Your task to perform on an android device: move an email to a new category in the gmail app Image 0: 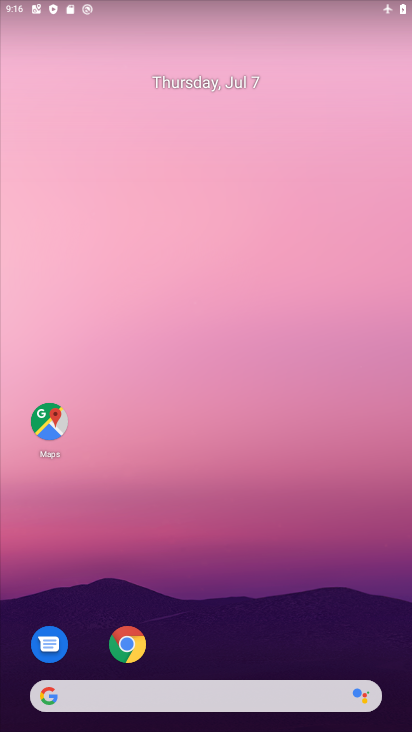
Step 0: drag from (310, 586) to (291, 109)
Your task to perform on an android device: move an email to a new category in the gmail app Image 1: 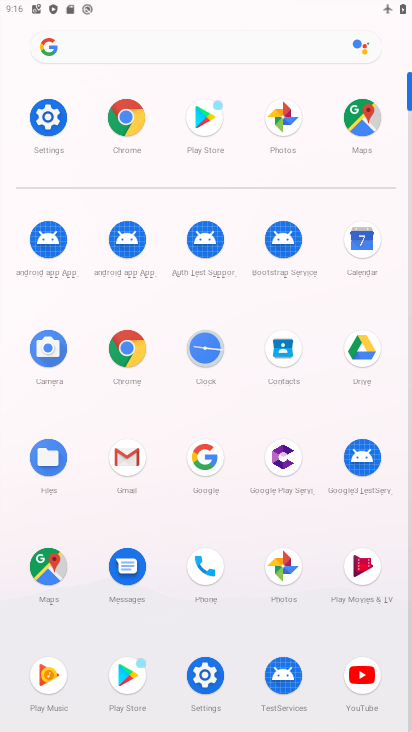
Step 1: click (124, 451)
Your task to perform on an android device: move an email to a new category in the gmail app Image 2: 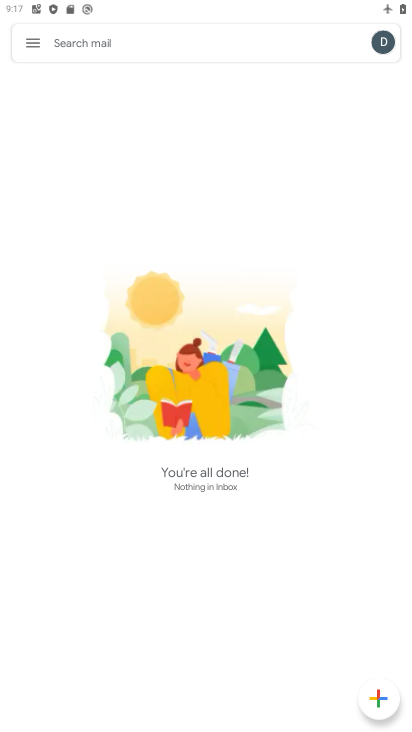
Step 2: click (31, 35)
Your task to perform on an android device: move an email to a new category in the gmail app Image 3: 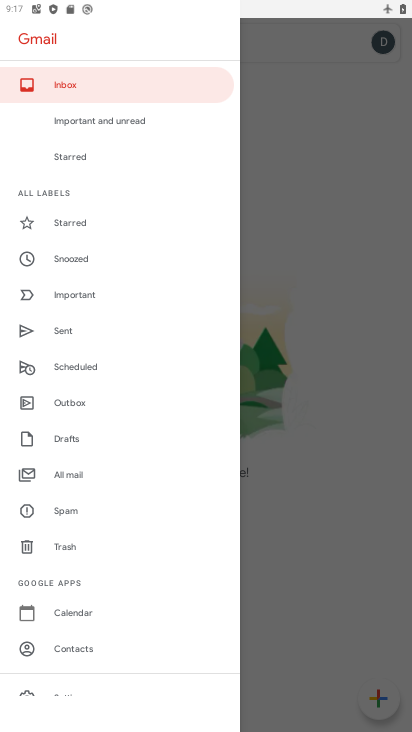
Step 3: click (64, 473)
Your task to perform on an android device: move an email to a new category in the gmail app Image 4: 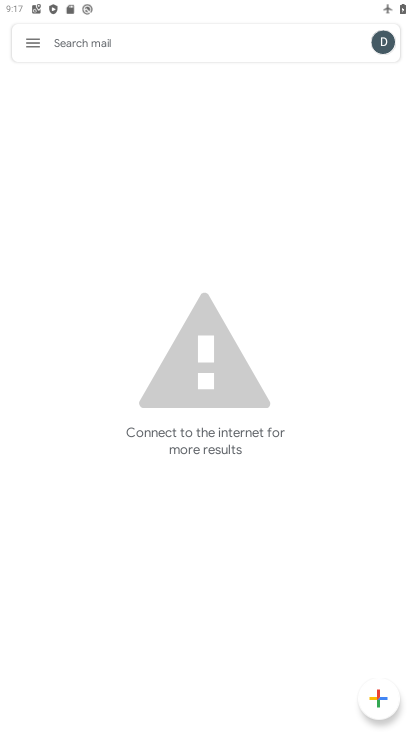
Step 4: task complete